Your task to perform on an android device: set the timer Image 0: 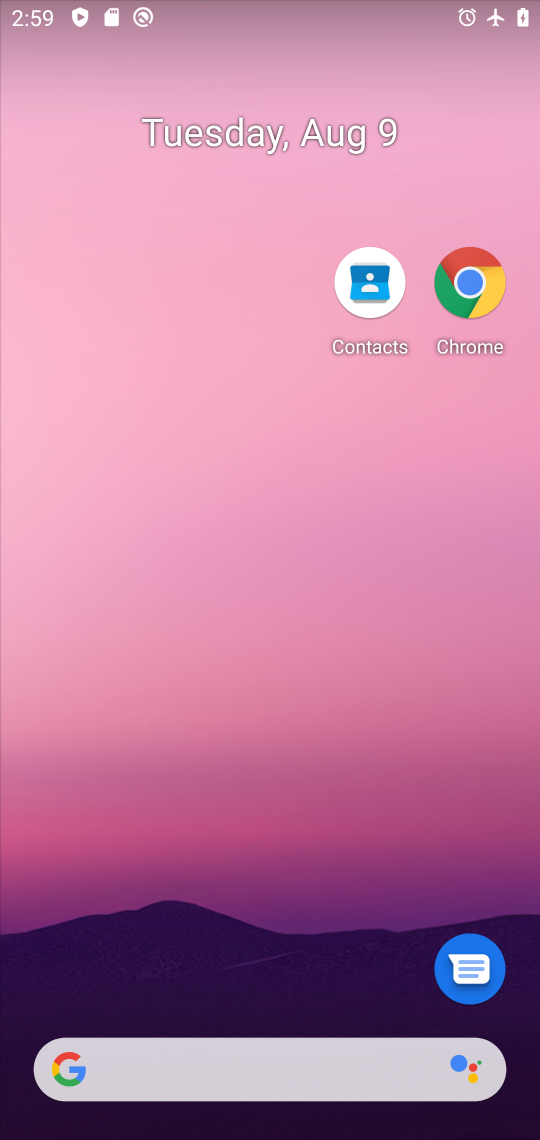
Step 0: drag from (261, 982) to (369, 245)
Your task to perform on an android device: set the timer Image 1: 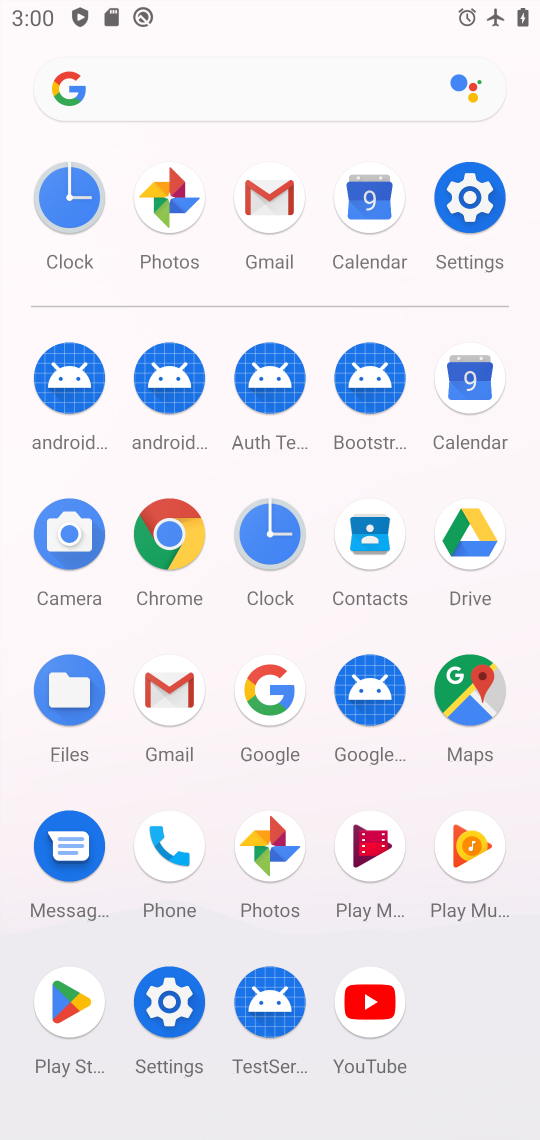
Step 1: click (277, 527)
Your task to perform on an android device: set the timer Image 2: 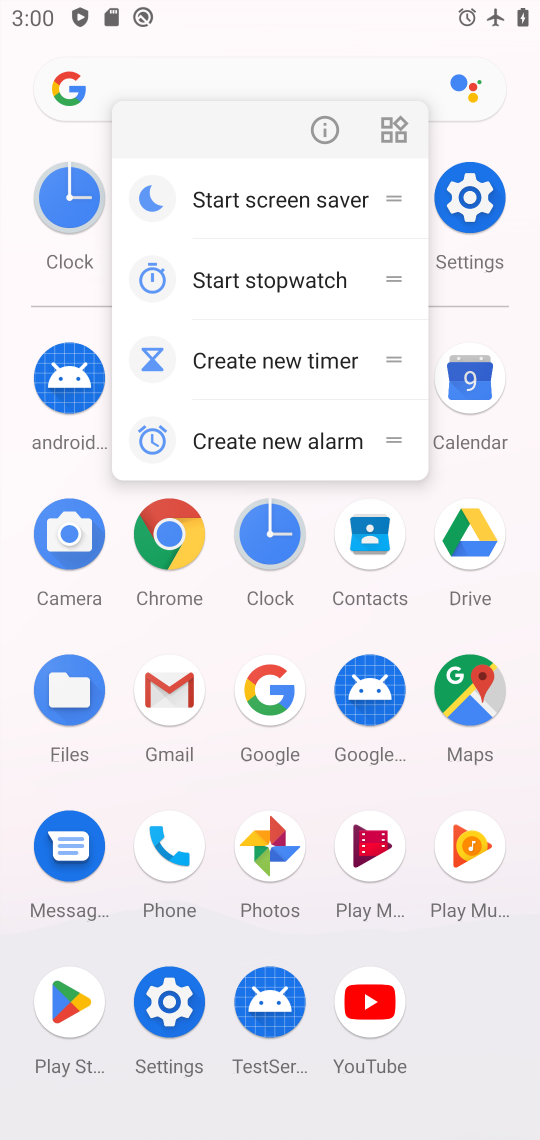
Step 2: click (323, 133)
Your task to perform on an android device: set the timer Image 3: 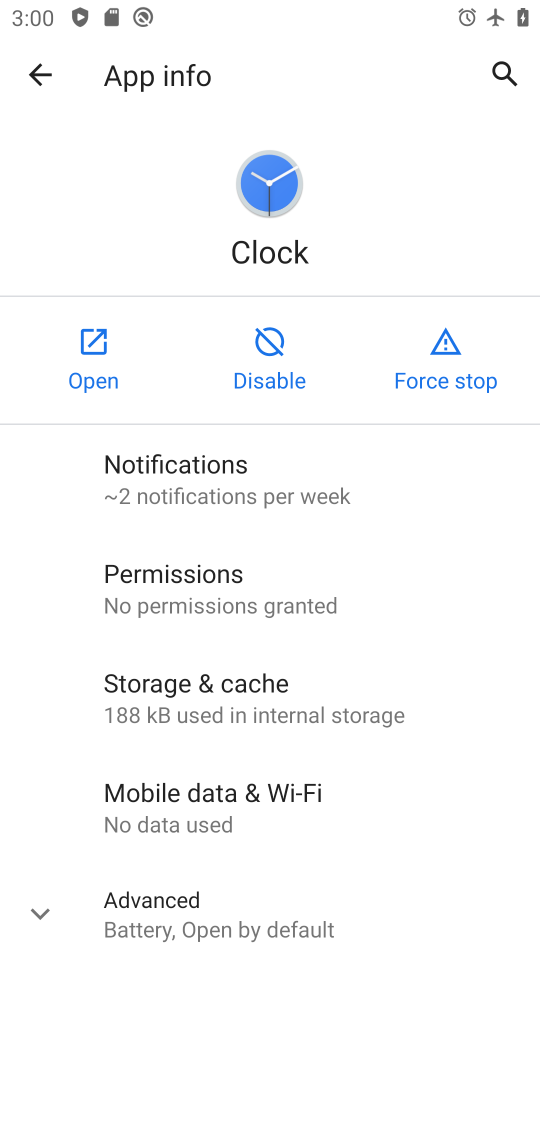
Step 3: click (95, 363)
Your task to perform on an android device: set the timer Image 4: 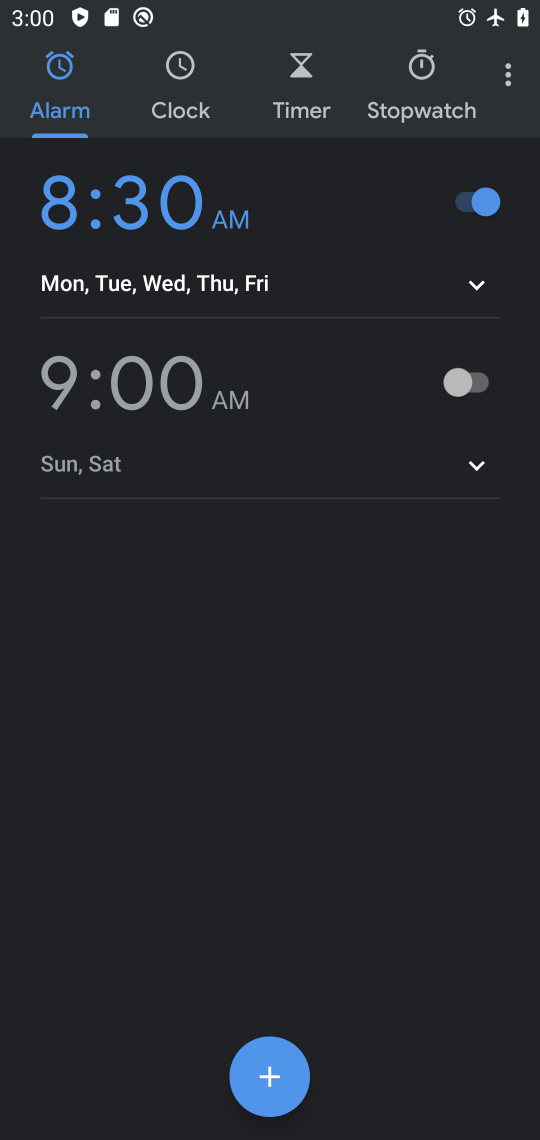
Step 4: click (302, 90)
Your task to perform on an android device: set the timer Image 5: 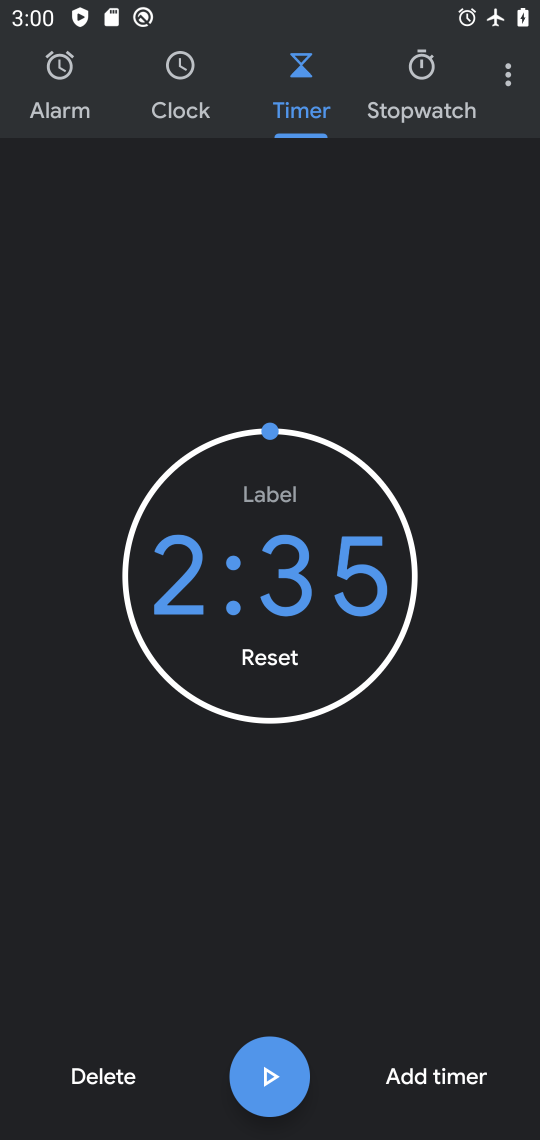
Step 5: click (268, 1094)
Your task to perform on an android device: set the timer Image 6: 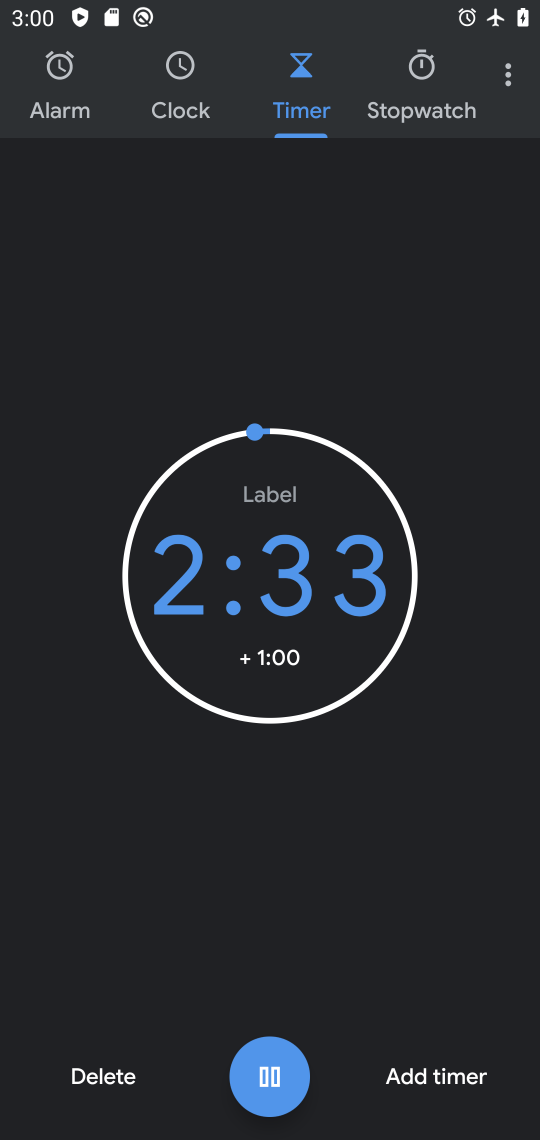
Step 6: task complete